Your task to perform on an android device: visit the assistant section in the google photos Image 0: 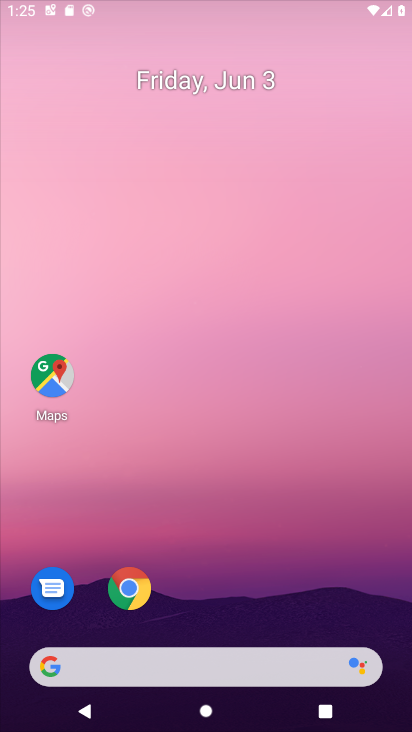
Step 0: drag from (232, 660) to (279, 231)
Your task to perform on an android device: visit the assistant section in the google photos Image 1: 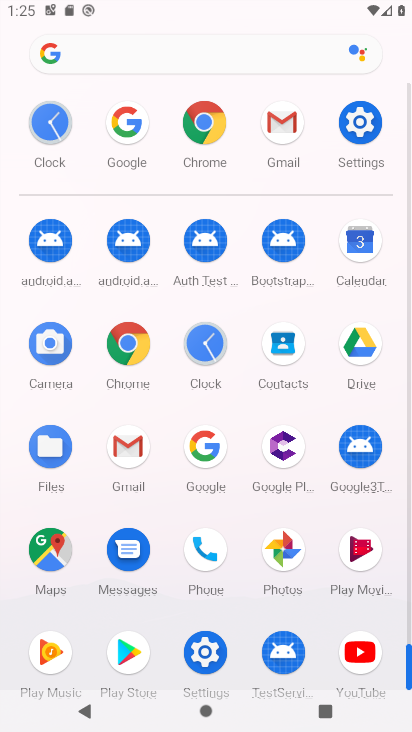
Step 1: press home button
Your task to perform on an android device: visit the assistant section in the google photos Image 2: 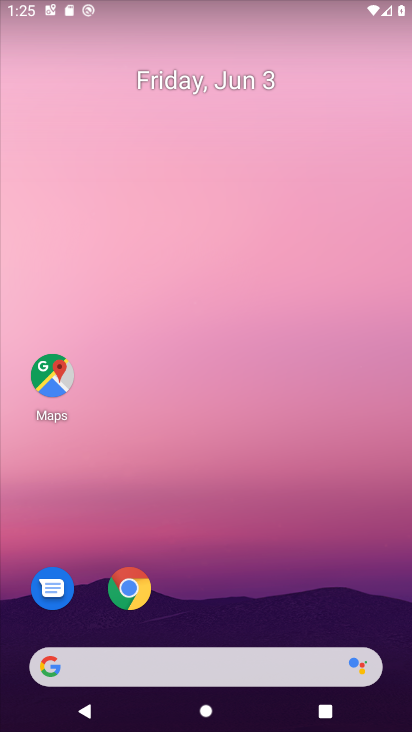
Step 2: drag from (244, 366) to (331, 81)
Your task to perform on an android device: visit the assistant section in the google photos Image 3: 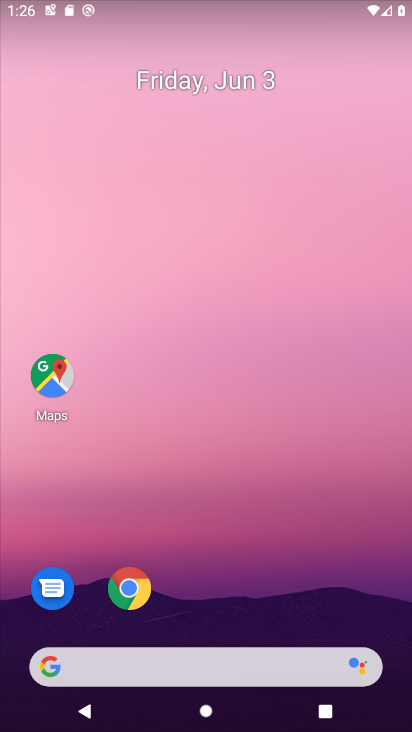
Step 3: drag from (299, 577) to (223, 108)
Your task to perform on an android device: visit the assistant section in the google photos Image 4: 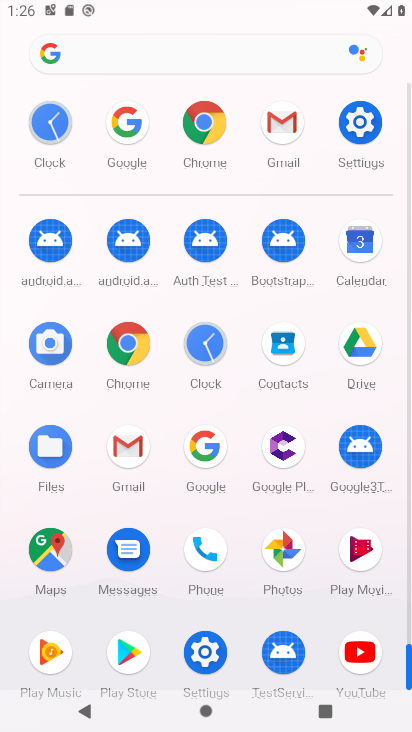
Step 4: click (298, 552)
Your task to perform on an android device: visit the assistant section in the google photos Image 5: 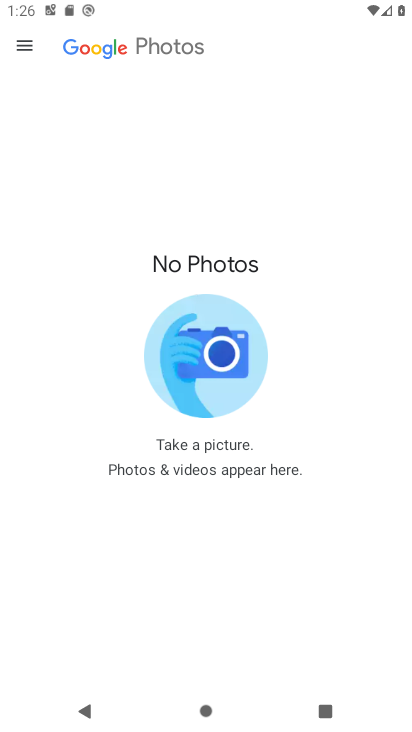
Step 5: click (26, 41)
Your task to perform on an android device: visit the assistant section in the google photos Image 6: 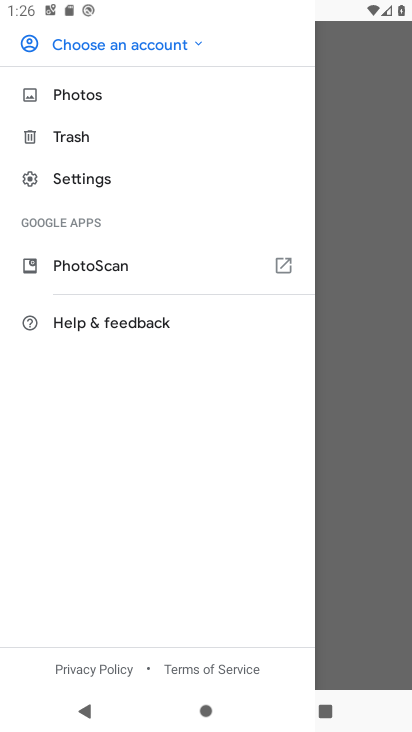
Step 6: task complete